Your task to perform on an android device: turn on data saver in the chrome app Image 0: 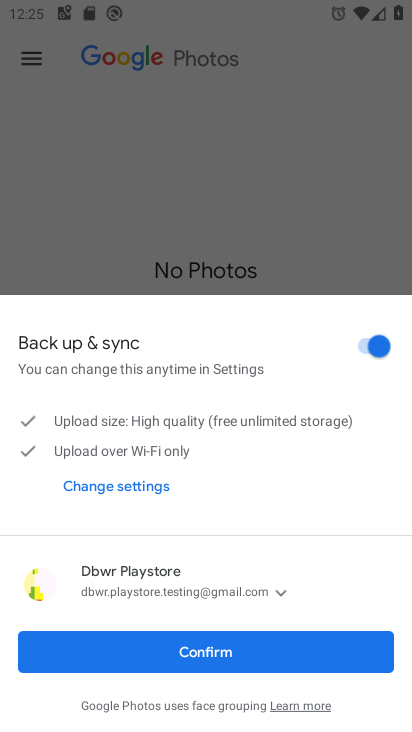
Step 0: press home button
Your task to perform on an android device: turn on data saver in the chrome app Image 1: 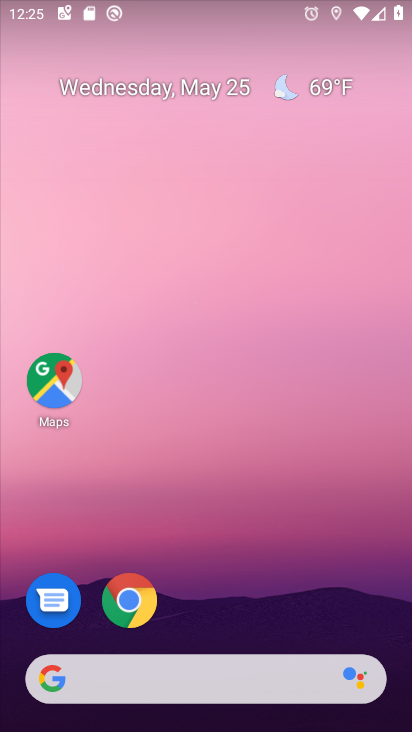
Step 1: drag from (221, 613) to (272, 78)
Your task to perform on an android device: turn on data saver in the chrome app Image 2: 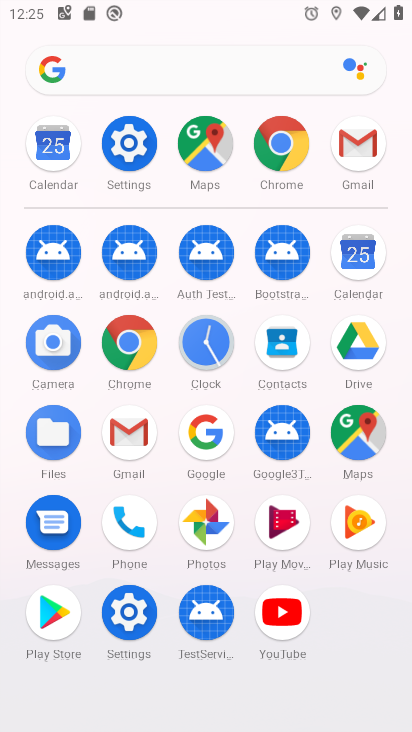
Step 2: click (128, 372)
Your task to perform on an android device: turn on data saver in the chrome app Image 3: 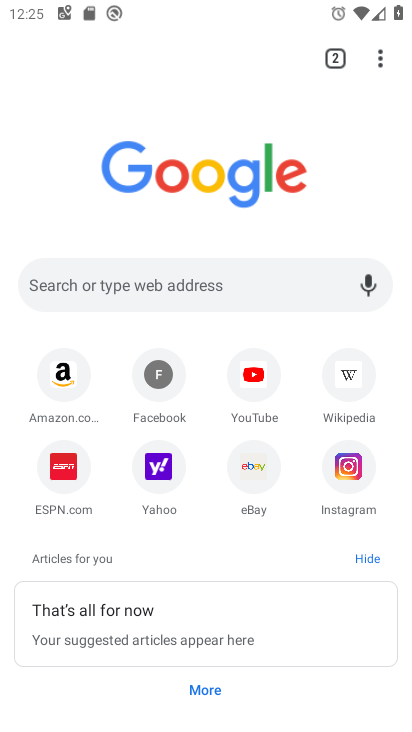
Step 3: click (382, 68)
Your task to perform on an android device: turn on data saver in the chrome app Image 4: 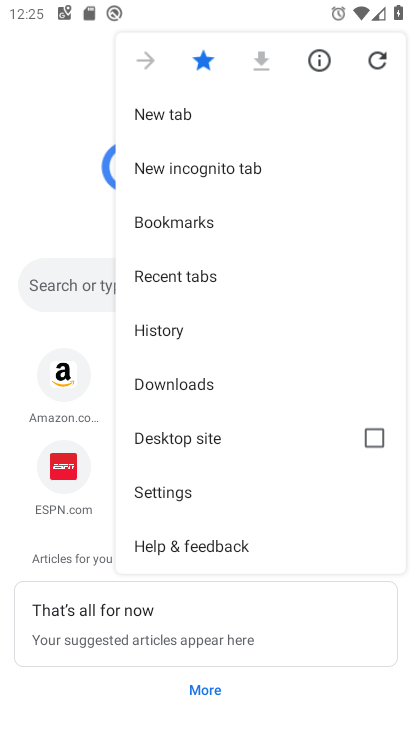
Step 4: click (188, 495)
Your task to perform on an android device: turn on data saver in the chrome app Image 5: 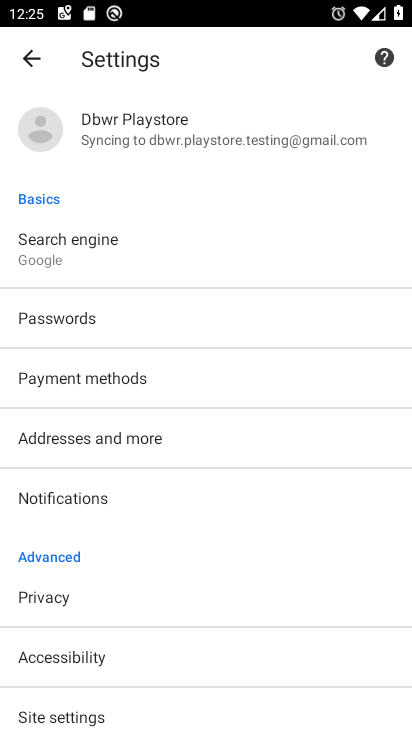
Step 5: drag from (234, 595) to (267, 460)
Your task to perform on an android device: turn on data saver in the chrome app Image 6: 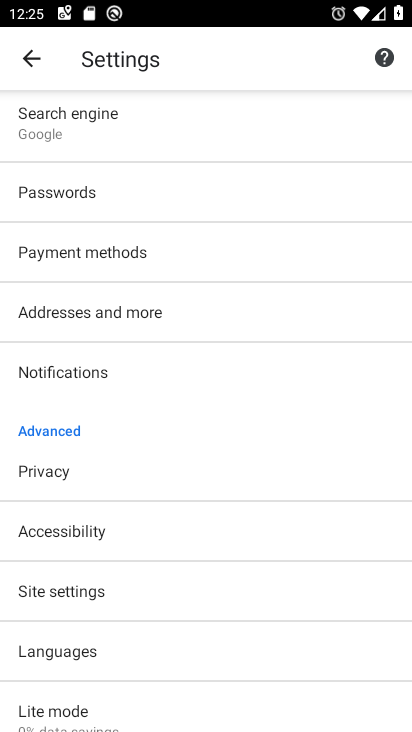
Step 6: drag from (260, 638) to (267, 516)
Your task to perform on an android device: turn on data saver in the chrome app Image 7: 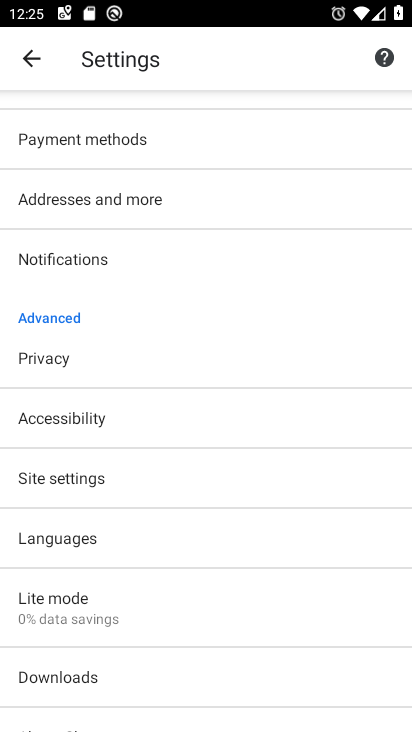
Step 7: drag from (271, 640) to (260, 522)
Your task to perform on an android device: turn on data saver in the chrome app Image 8: 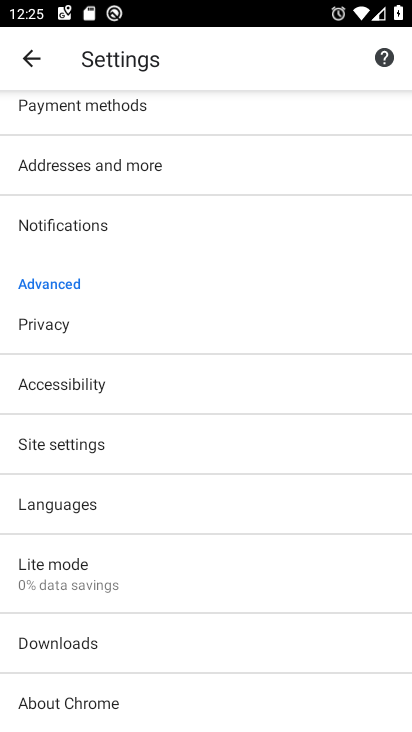
Step 8: drag from (244, 647) to (242, 490)
Your task to perform on an android device: turn on data saver in the chrome app Image 9: 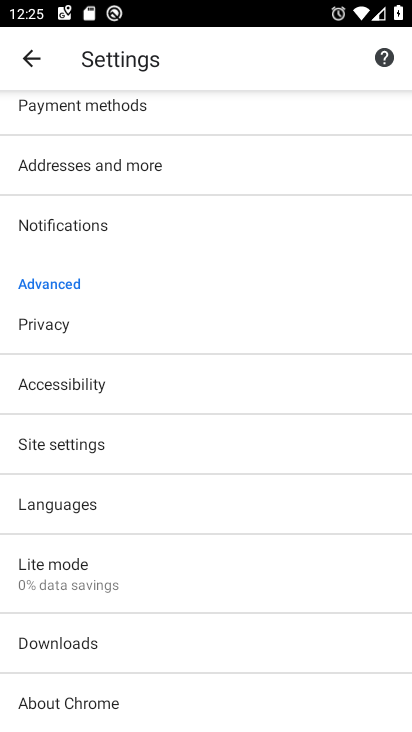
Step 9: click (220, 585)
Your task to perform on an android device: turn on data saver in the chrome app Image 10: 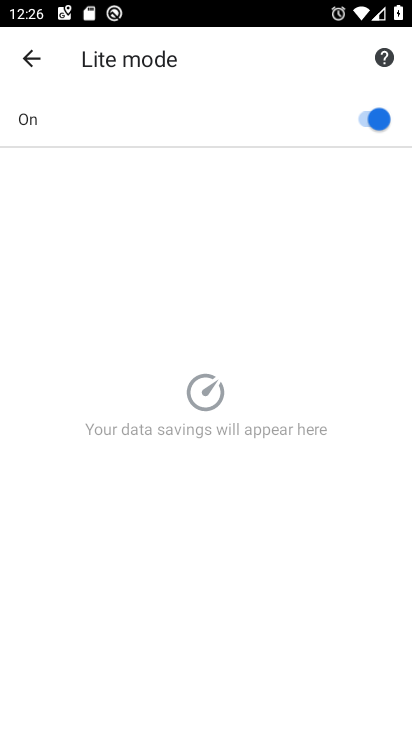
Step 10: task complete